Your task to perform on an android device: find photos in the google photos app Image 0: 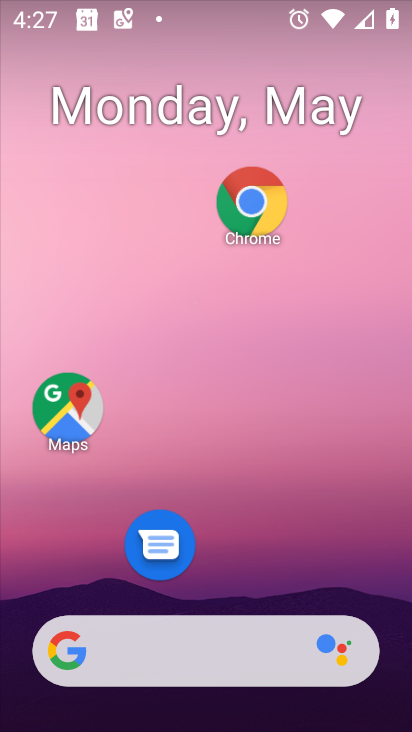
Step 0: drag from (234, 557) to (230, 141)
Your task to perform on an android device: find photos in the google photos app Image 1: 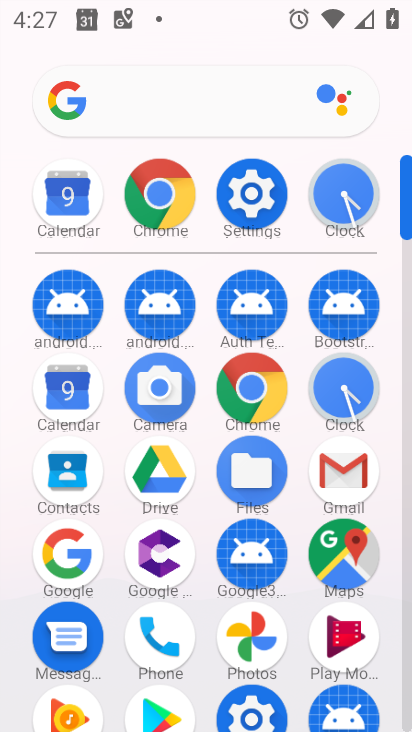
Step 1: drag from (137, 511) to (158, 261)
Your task to perform on an android device: find photos in the google photos app Image 2: 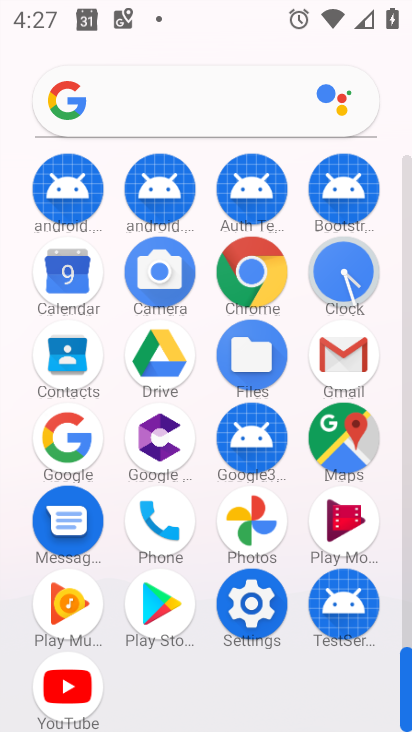
Step 2: click (231, 536)
Your task to perform on an android device: find photos in the google photos app Image 3: 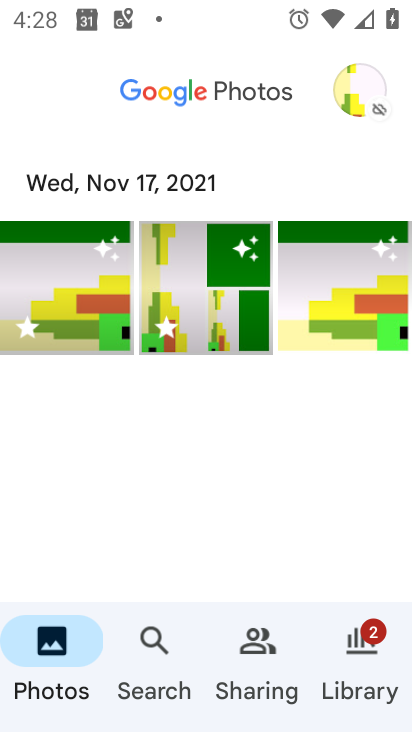
Step 3: click (255, 101)
Your task to perform on an android device: find photos in the google photos app Image 4: 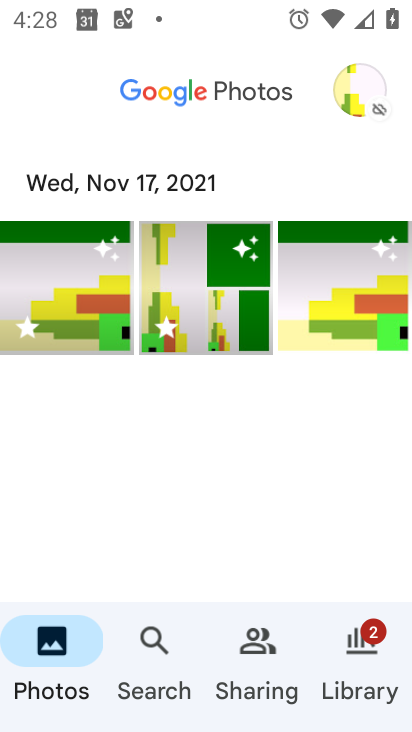
Step 4: click (156, 653)
Your task to perform on an android device: find photos in the google photos app Image 5: 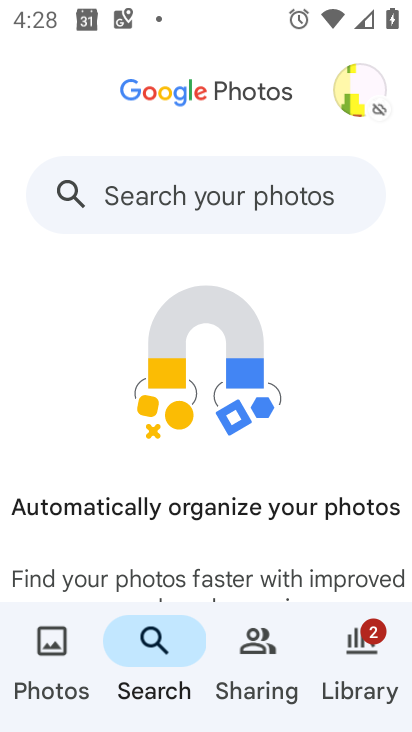
Step 5: click (182, 195)
Your task to perform on an android device: find photos in the google photos app Image 6: 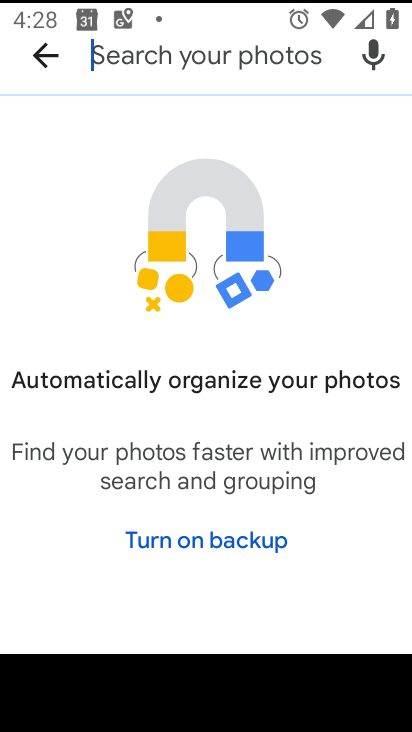
Step 6: type "aa"
Your task to perform on an android device: find photos in the google photos app Image 7: 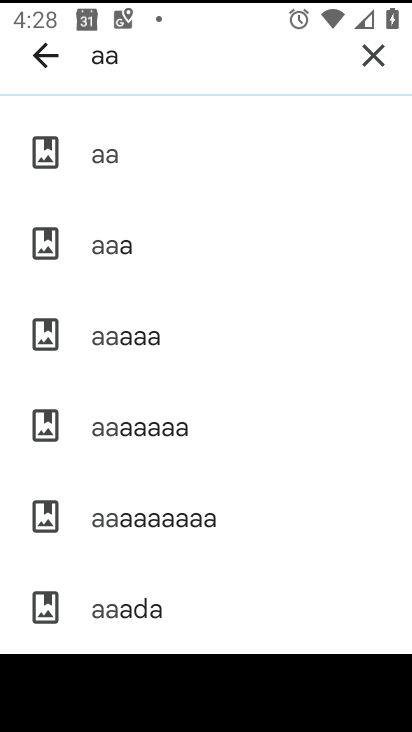
Step 7: click (158, 425)
Your task to perform on an android device: find photos in the google photos app Image 8: 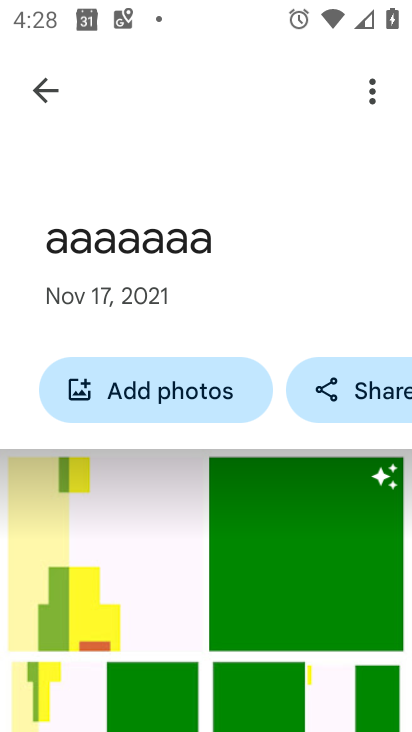
Step 8: task complete